Your task to perform on an android device: Go to Google maps Image 0: 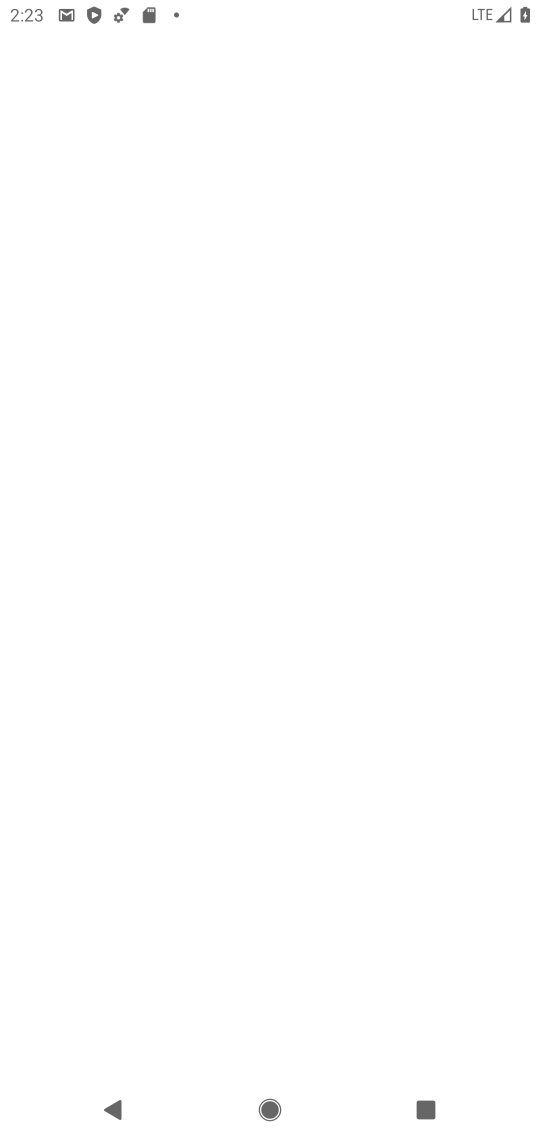
Step 0: press home button
Your task to perform on an android device: Go to Google maps Image 1: 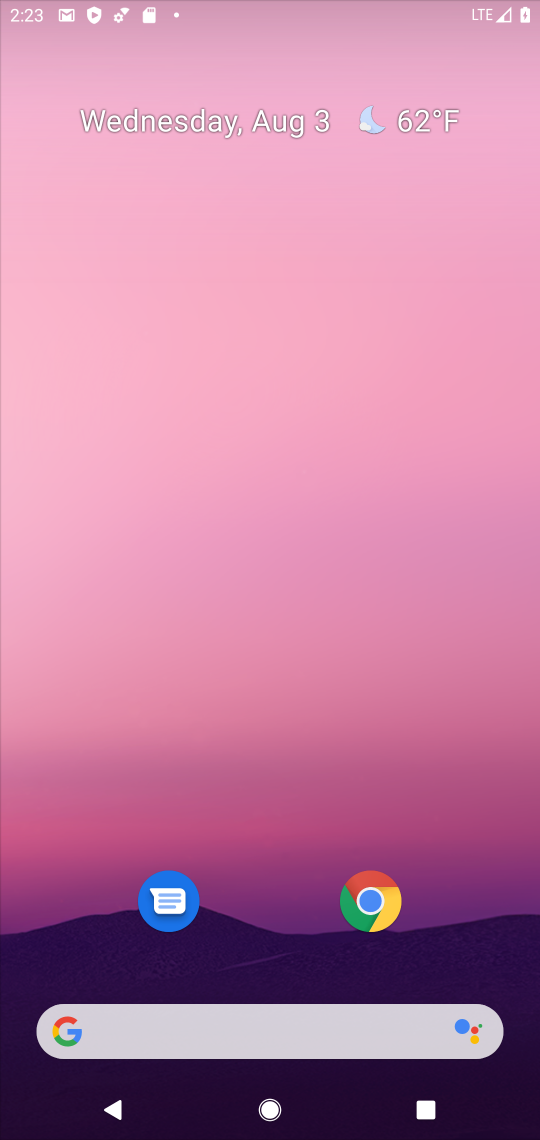
Step 1: drag from (232, 1037) to (304, 385)
Your task to perform on an android device: Go to Google maps Image 2: 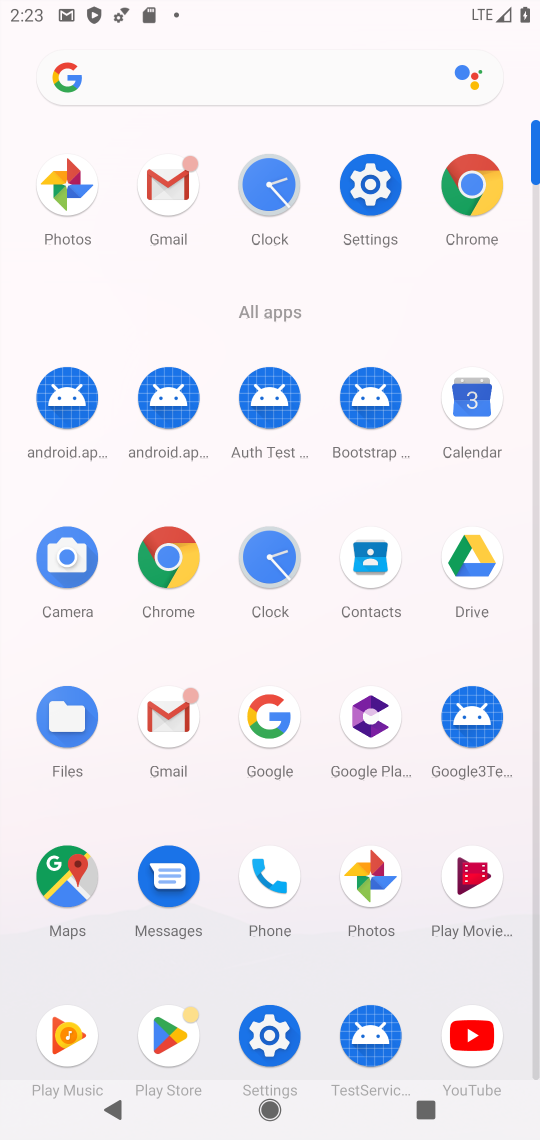
Step 2: click (79, 848)
Your task to perform on an android device: Go to Google maps Image 3: 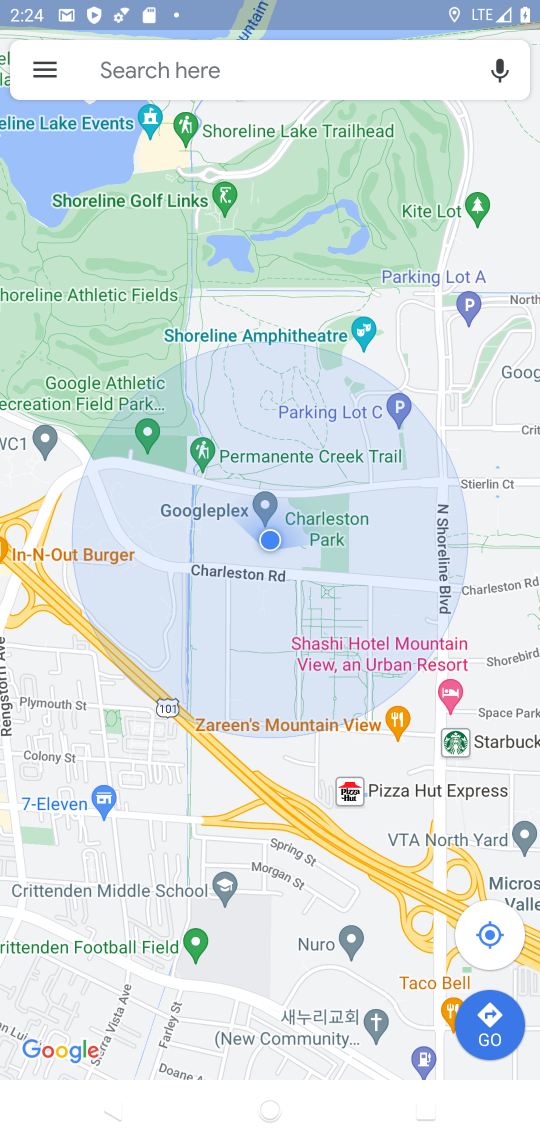
Step 3: task complete